Your task to perform on an android device: toggle improve location accuracy Image 0: 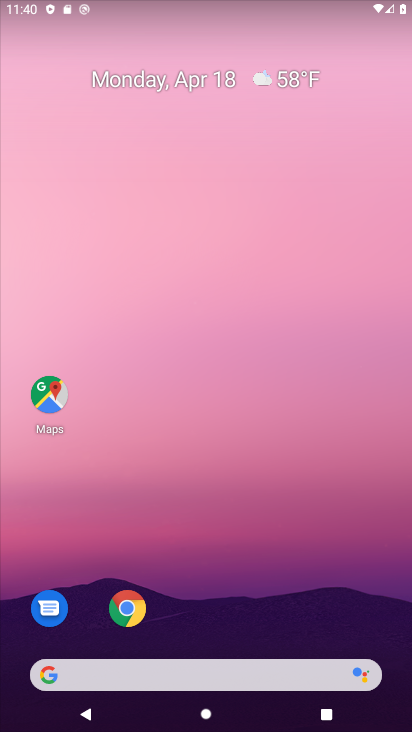
Step 0: drag from (225, 541) to (221, 194)
Your task to perform on an android device: toggle improve location accuracy Image 1: 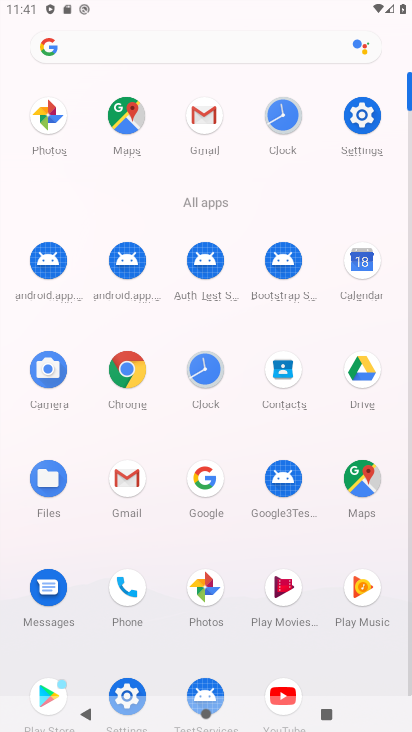
Step 1: click (362, 112)
Your task to perform on an android device: toggle improve location accuracy Image 2: 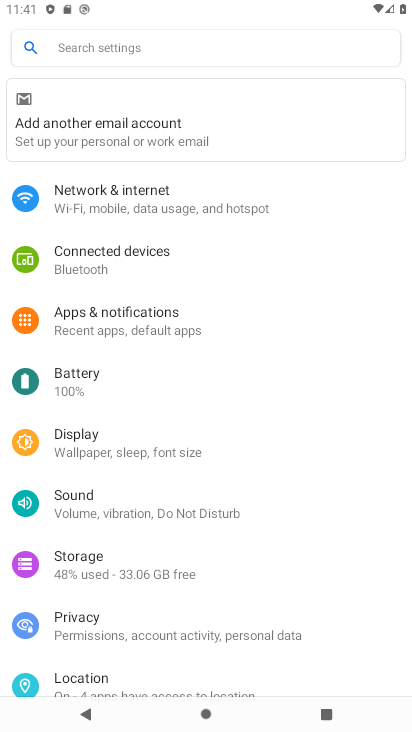
Step 2: drag from (188, 534) to (220, 239)
Your task to perform on an android device: toggle improve location accuracy Image 3: 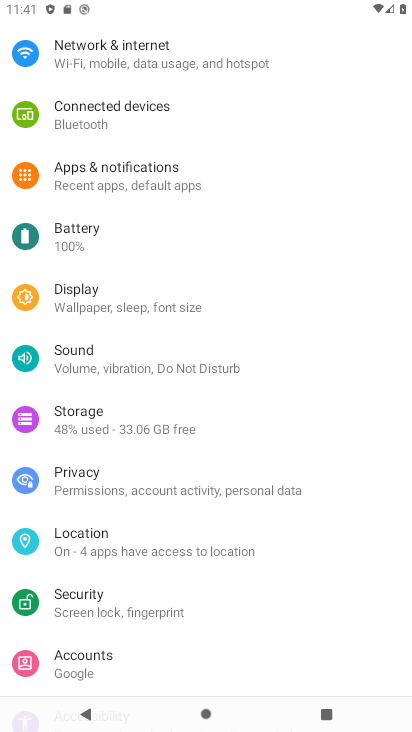
Step 3: click (91, 539)
Your task to perform on an android device: toggle improve location accuracy Image 4: 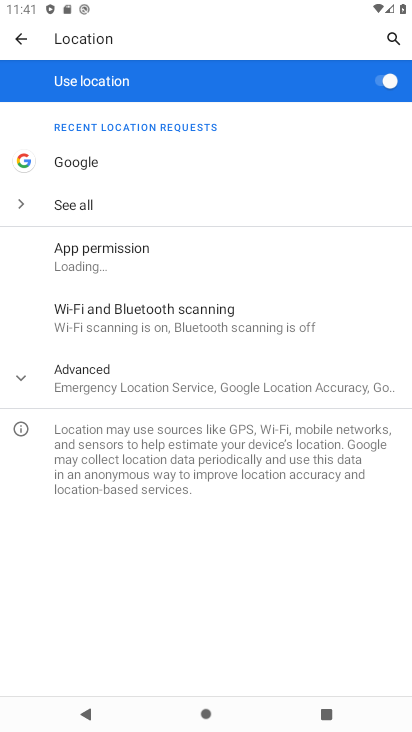
Step 4: click (116, 383)
Your task to perform on an android device: toggle improve location accuracy Image 5: 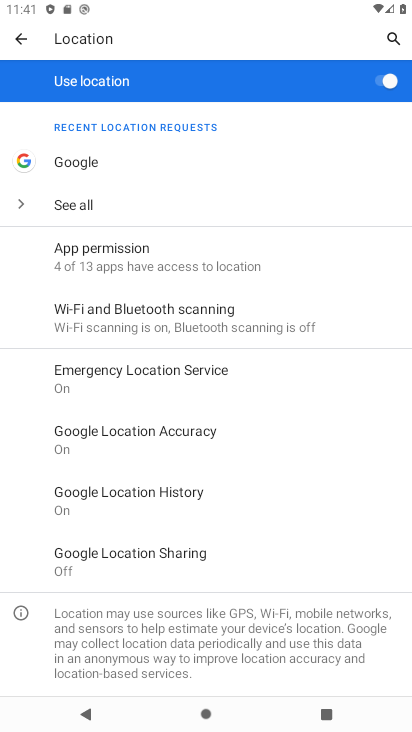
Step 5: click (141, 442)
Your task to perform on an android device: toggle improve location accuracy Image 6: 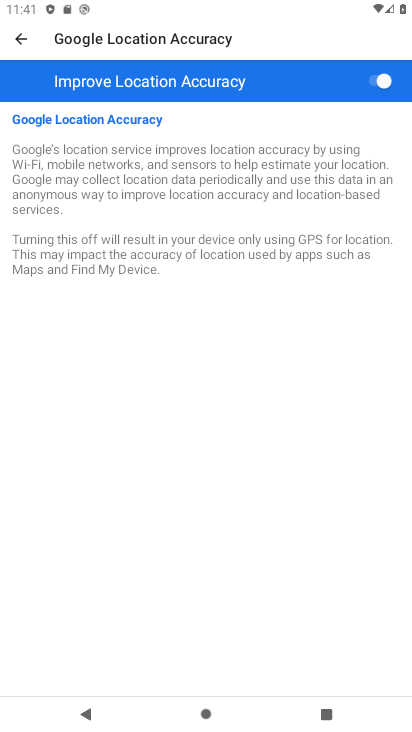
Step 6: click (379, 76)
Your task to perform on an android device: toggle improve location accuracy Image 7: 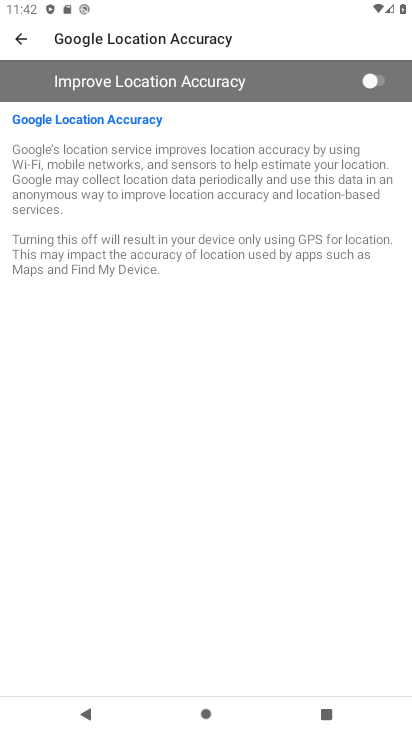
Step 7: task complete